Your task to perform on an android device: see creations saved in the google photos Image 0: 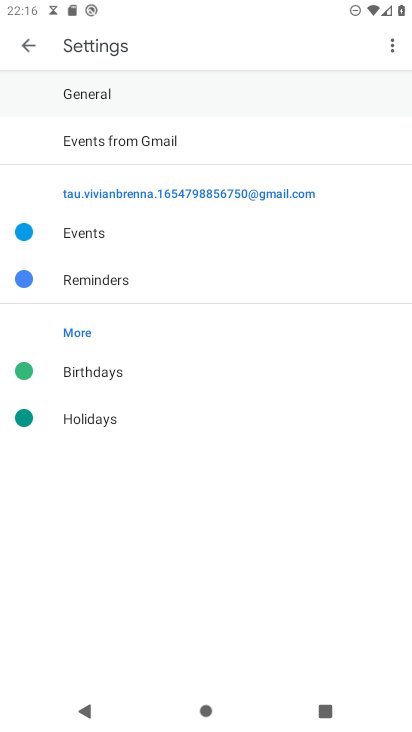
Step 0: press home button
Your task to perform on an android device: see creations saved in the google photos Image 1: 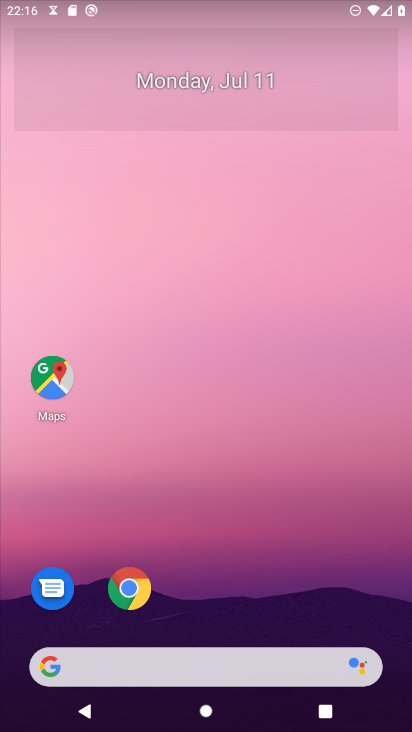
Step 1: drag from (280, 610) to (277, 112)
Your task to perform on an android device: see creations saved in the google photos Image 2: 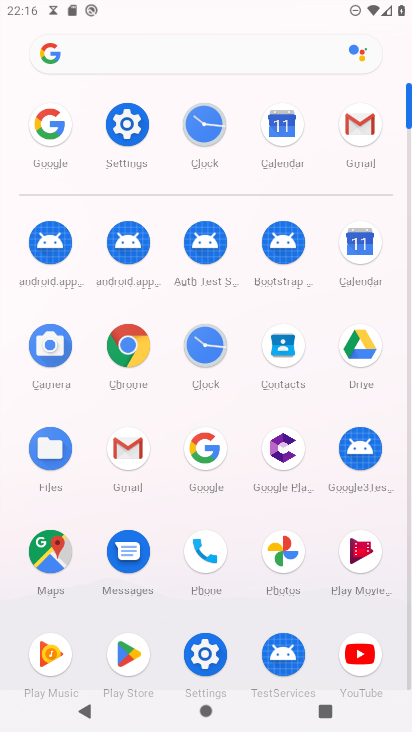
Step 2: click (276, 553)
Your task to perform on an android device: see creations saved in the google photos Image 3: 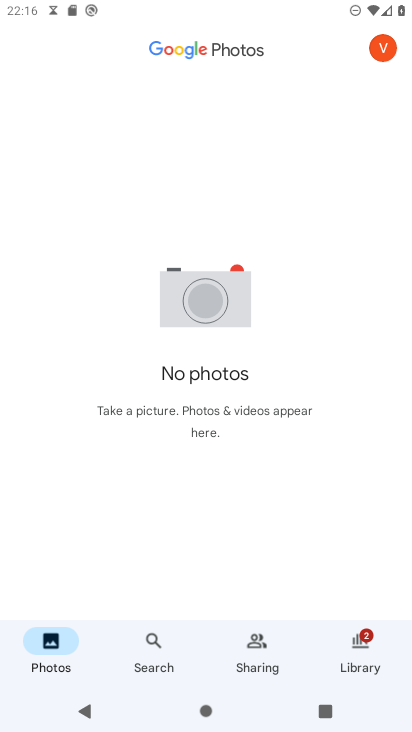
Step 3: click (154, 630)
Your task to perform on an android device: see creations saved in the google photos Image 4: 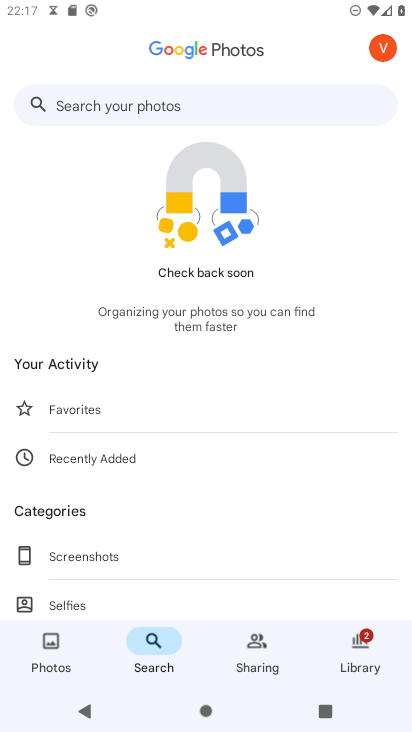
Step 4: drag from (147, 506) to (145, 189)
Your task to perform on an android device: see creations saved in the google photos Image 5: 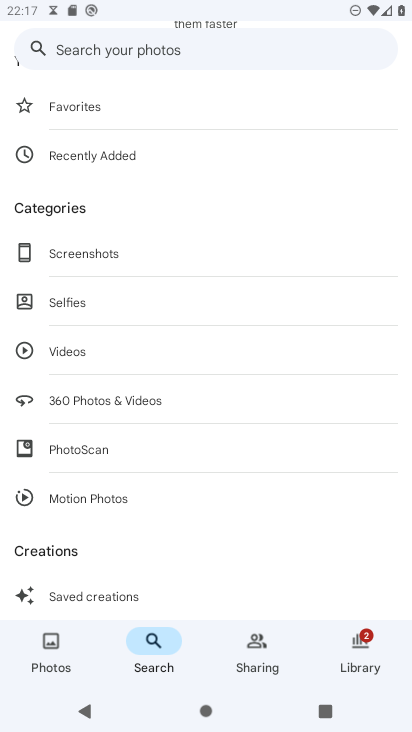
Step 5: drag from (185, 550) to (181, 201)
Your task to perform on an android device: see creations saved in the google photos Image 6: 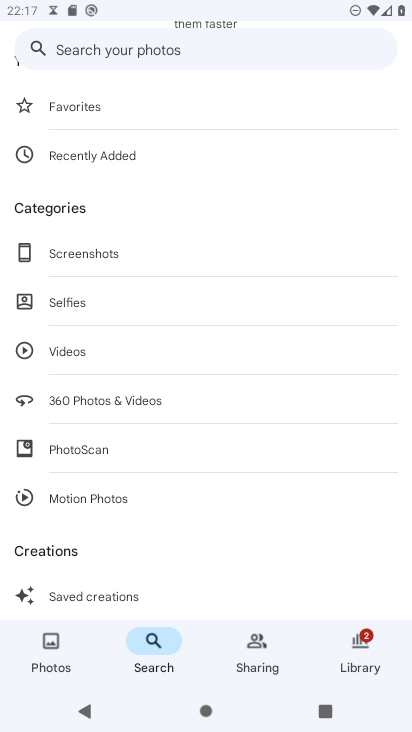
Step 6: click (65, 591)
Your task to perform on an android device: see creations saved in the google photos Image 7: 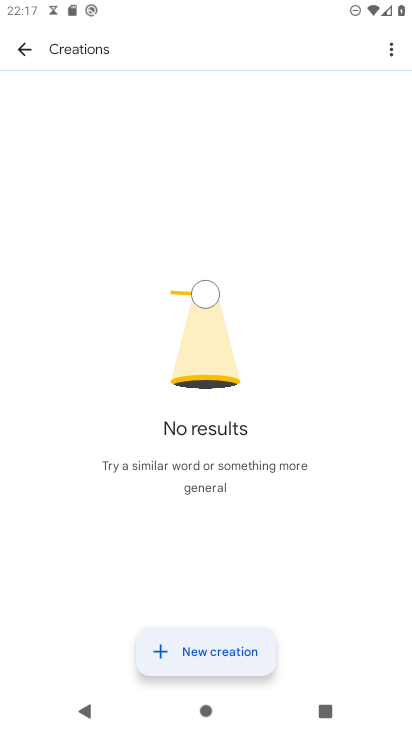
Step 7: task complete